Your task to perform on an android device: Turn on the flashlight Image 0: 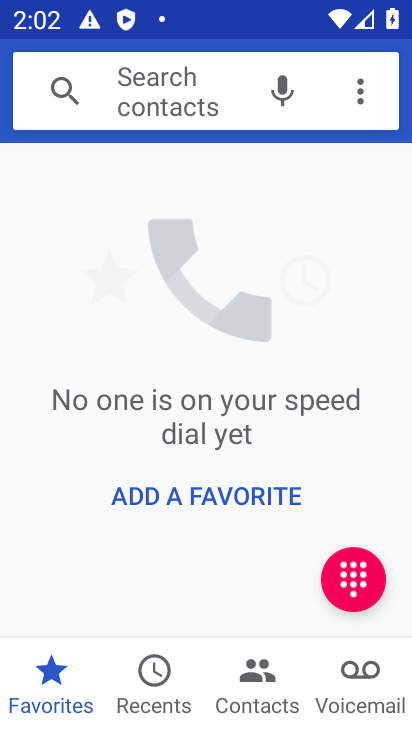
Step 0: press home button
Your task to perform on an android device: Turn on the flashlight Image 1: 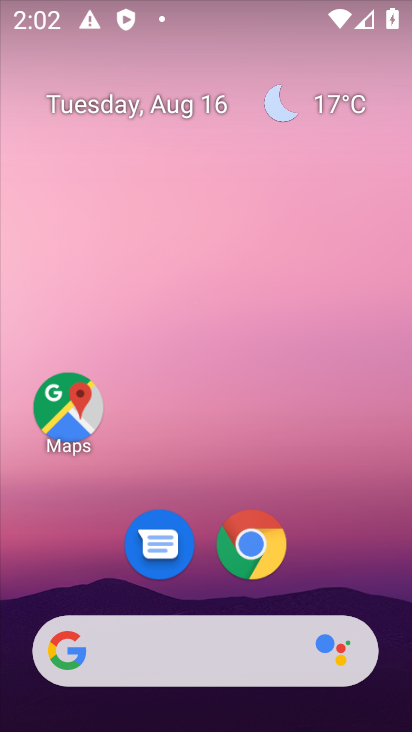
Step 1: drag from (180, 655) to (234, 126)
Your task to perform on an android device: Turn on the flashlight Image 2: 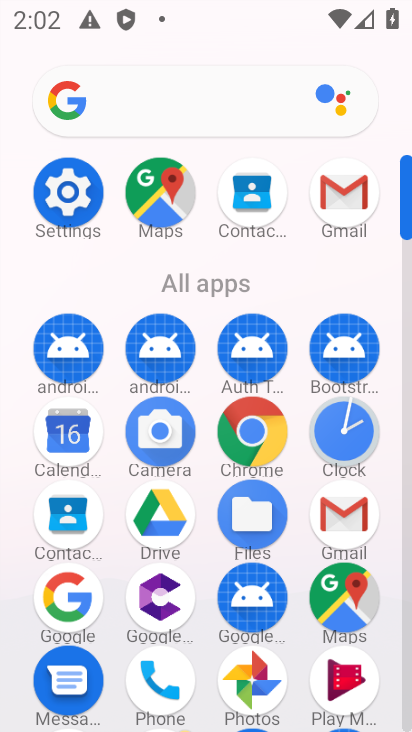
Step 2: click (69, 192)
Your task to perform on an android device: Turn on the flashlight Image 3: 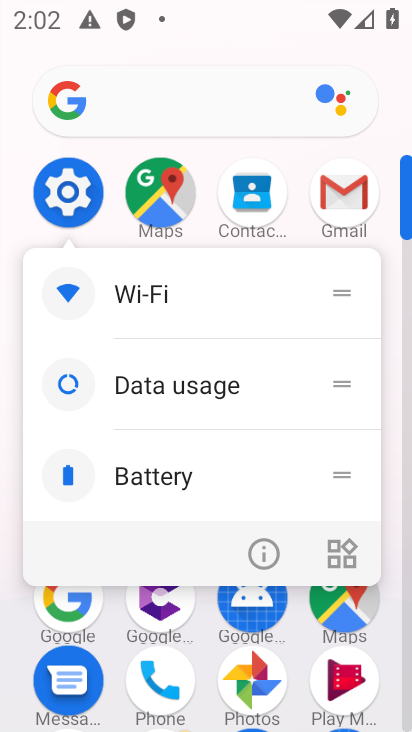
Step 3: click (69, 192)
Your task to perform on an android device: Turn on the flashlight Image 4: 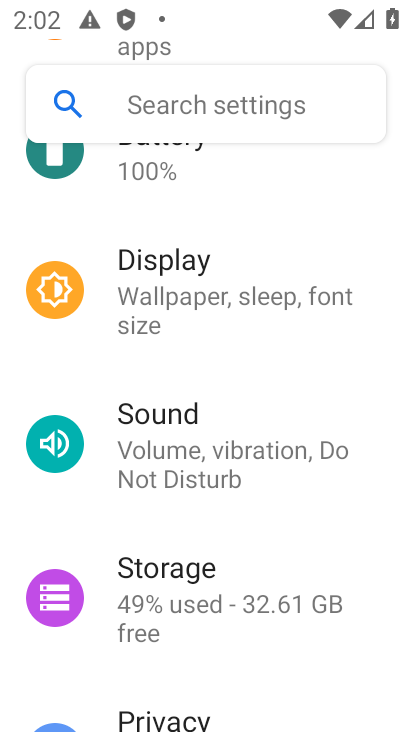
Step 4: click (183, 288)
Your task to perform on an android device: Turn on the flashlight Image 5: 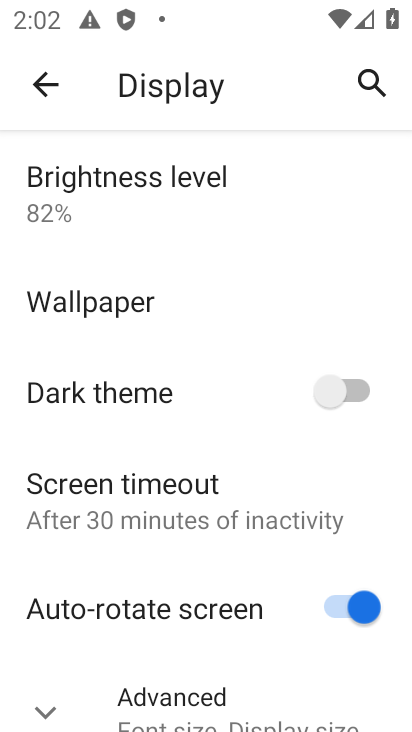
Step 5: drag from (211, 423) to (237, 175)
Your task to perform on an android device: Turn on the flashlight Image 6: 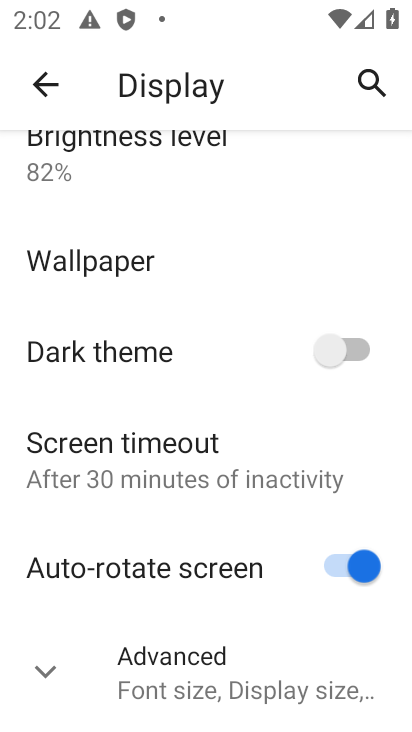
Step 6: click (380, 74)
Your task to perform on an android device: Turn on the flashlight Image 7: 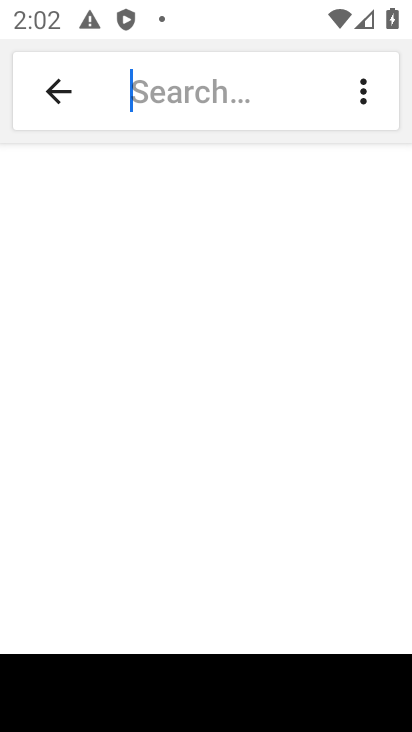
Step 7: type "flashlight"
Your task to perform on an android device: Turn on the flashlight Image 8: 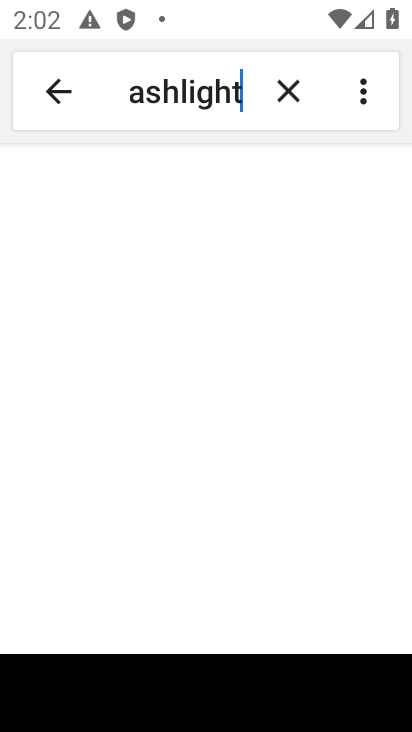
Step 8: type ""
Your task to perform on an android device: Turn on the flashlight Image 9: 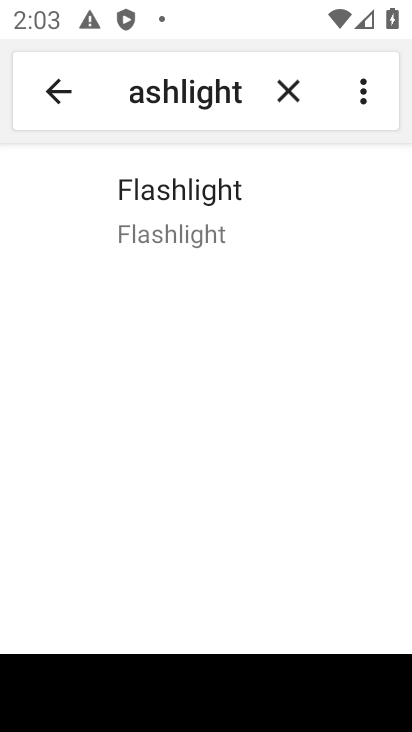
Step 9: click (176, 193)
Your task to perform on an android device: Turn on the flashlight Image 10: 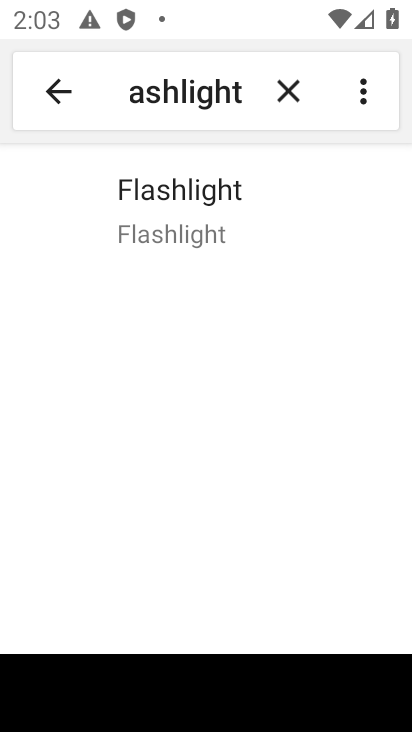
Step 10: click (364, 204)
Your task to perform on an android device: Turn on the flashlight Image 11: 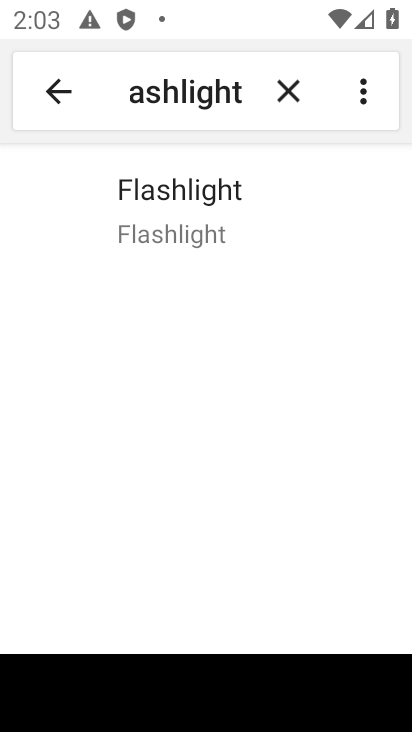
Step 11: click (388, 213)
Your task to perform on an android device: Turn on the flashlight Image 12: 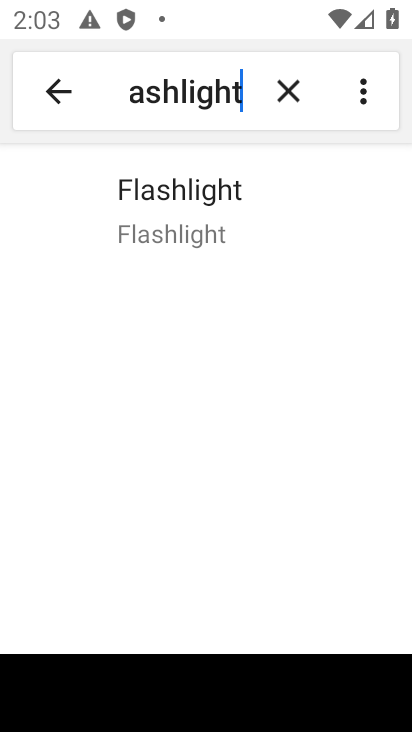
Step 12: click (388, 213)
Your task to perform on an android device: Turn on the flashlight Image 13: 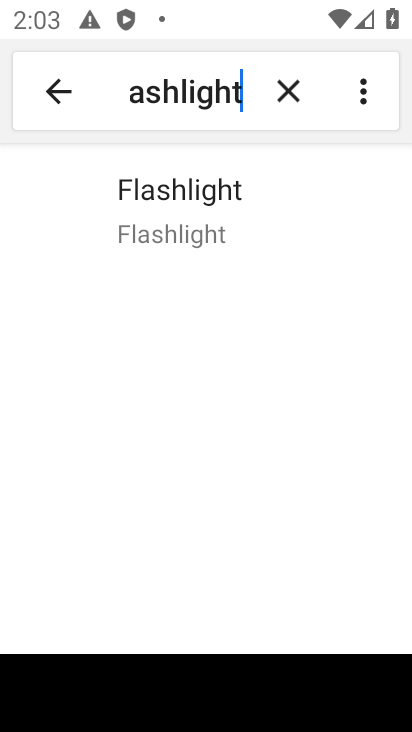
Step 13: task complete